Your task to perform on an android device: uninstall "Reddit" Image 0: 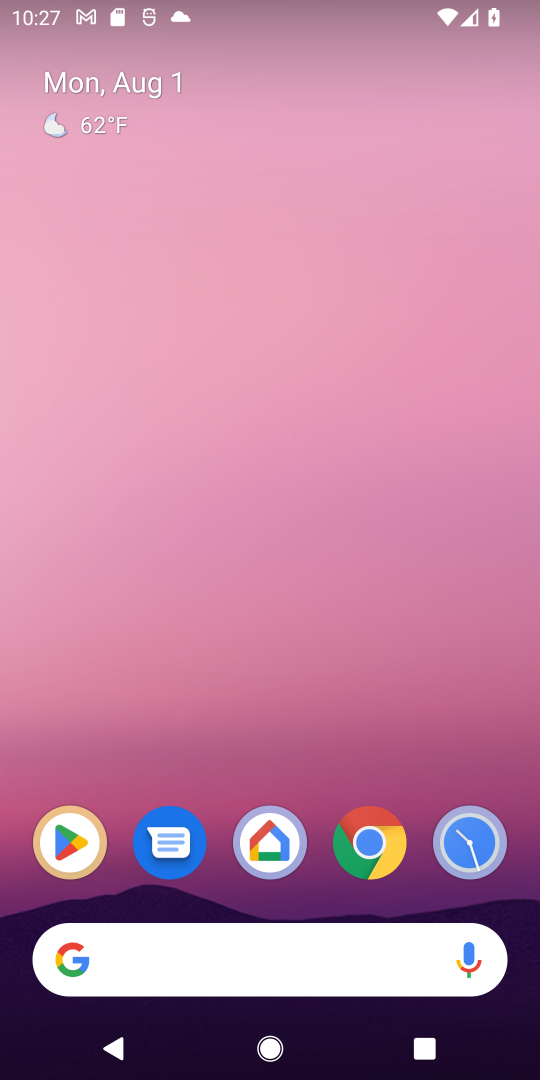
Step 0: click (99, 841)
Your task to perform on an android device: uninstall "Reddit" Image 1: 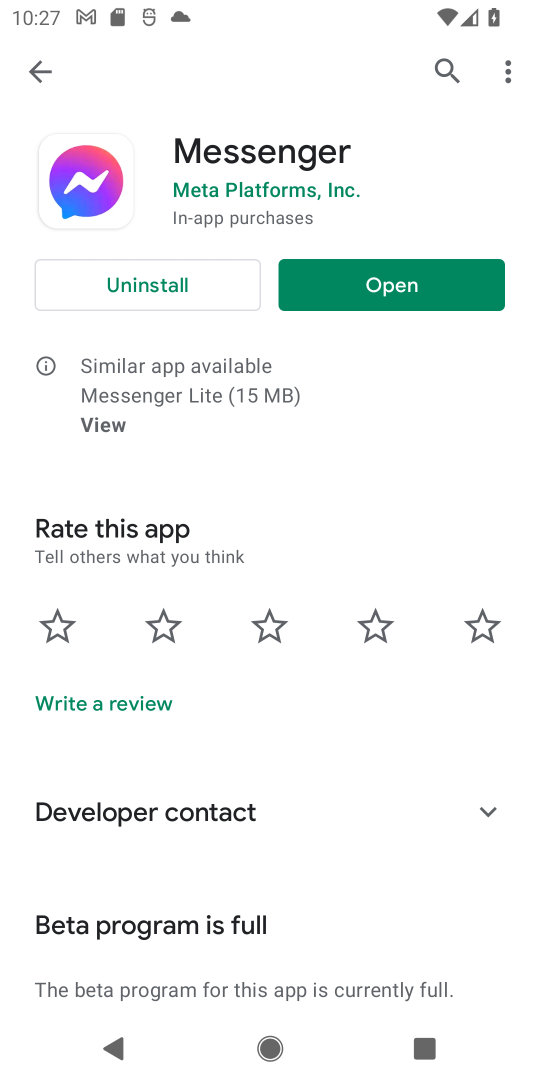
Step 1: click (428, 74)
Your task to perform on an android device: uninstall "Reddit" Image 2: 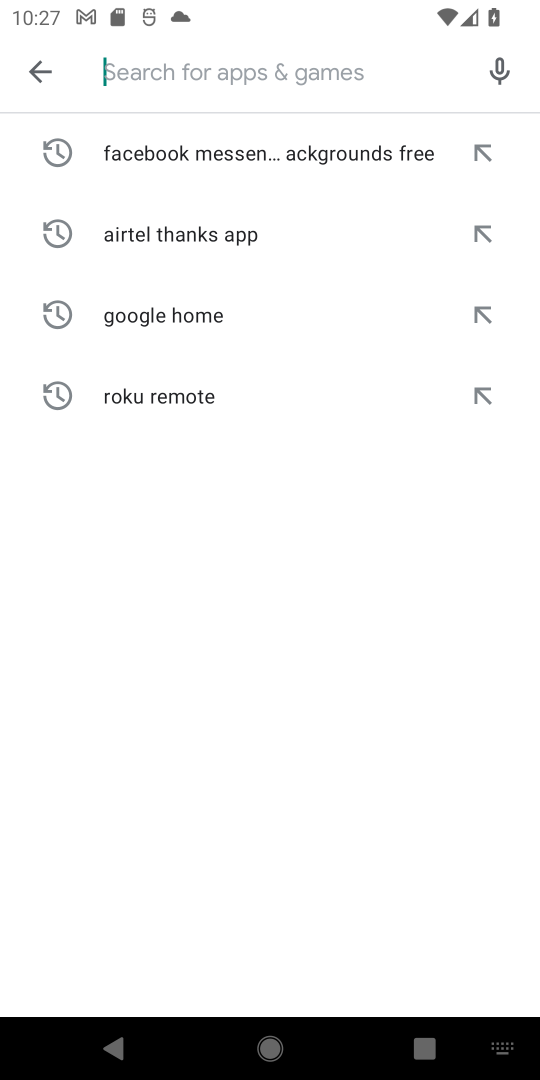
Step 2: click (197, 106)
Your task to perform on an android device: uninstall "Reddit" Image 3: 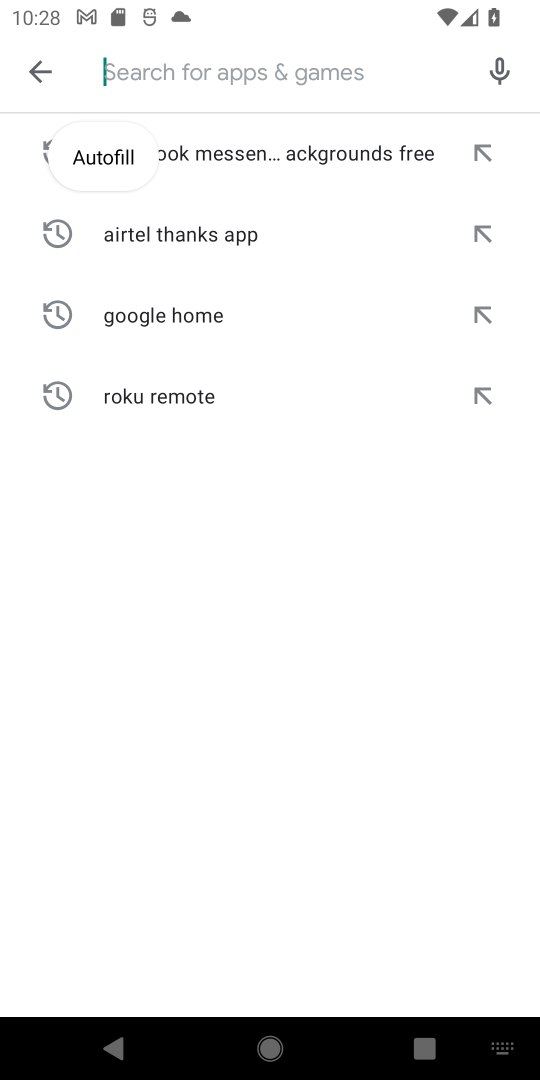
Step 3: type "reddit"
Your task to perform on an android device: uninstall "Reddit" Image 4: 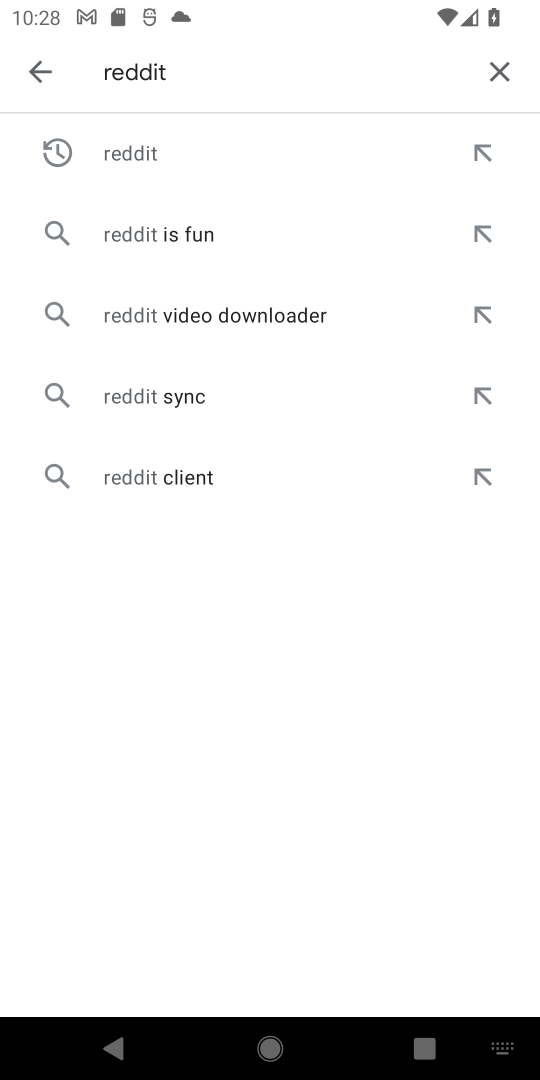
Step 4: click (147, 157)
Your task to perform on an android device: uninstall "Reddit" Image 5: 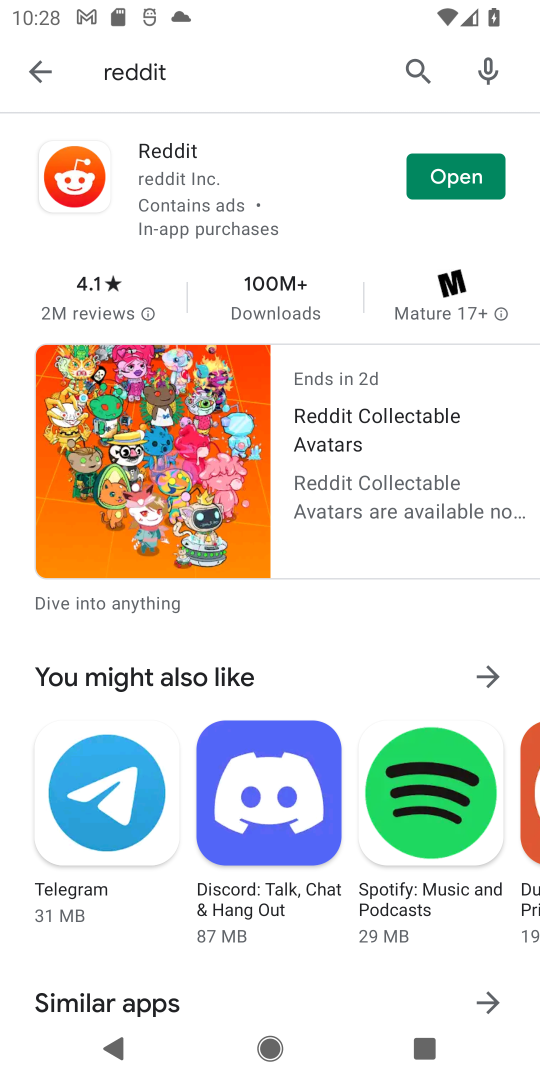
Step 5: click (202, 179)
Your task to perform on an android device: uninstall "Reddit" Image 6: 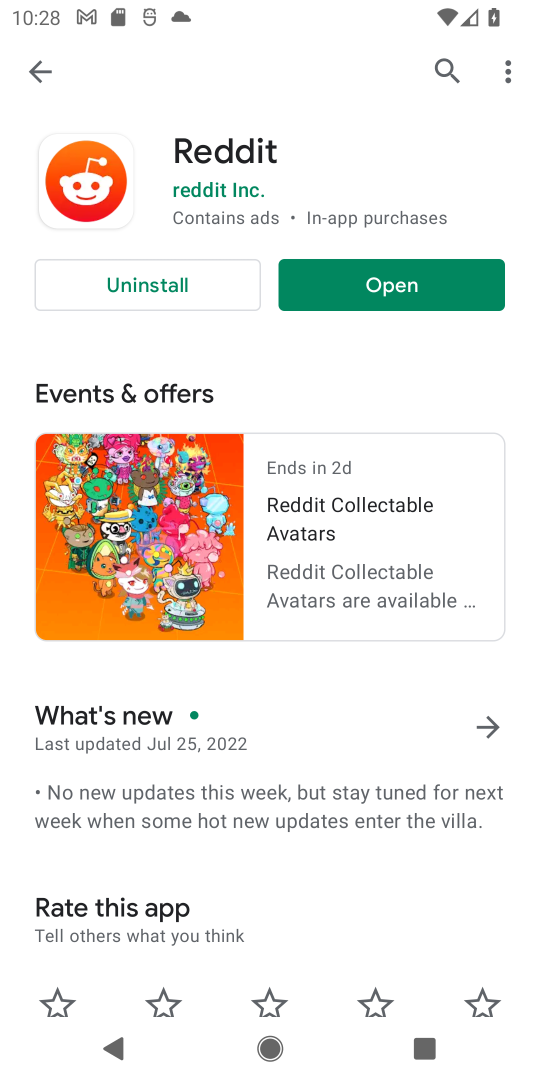
Step 6: click (147, 275)
Your task to perform on an android device: uninstall "Reddit" Image 7: 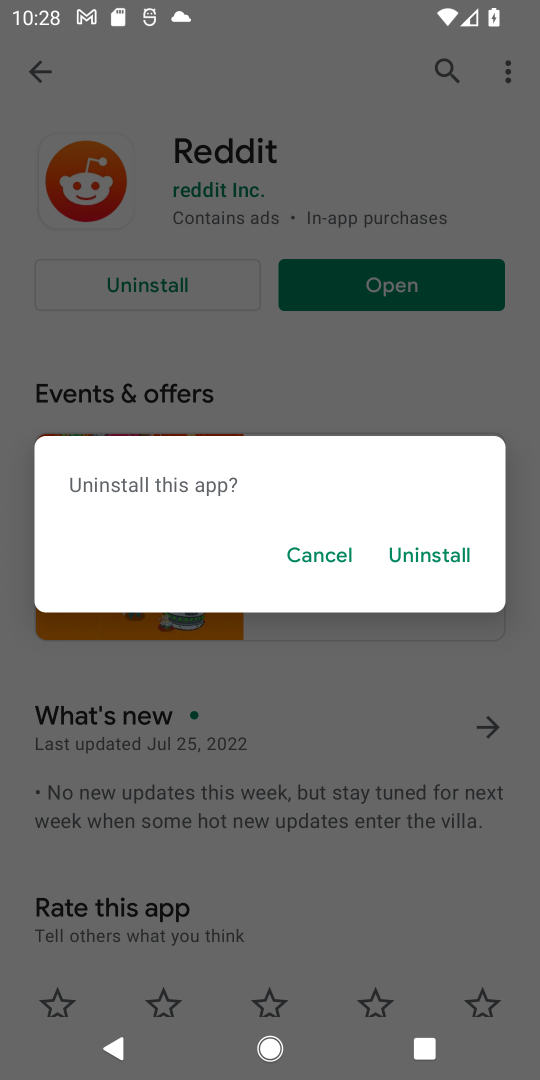
Step 7: click (415, 550)
Your task to perform on an android device: uninstall "Reddit" Image 8: 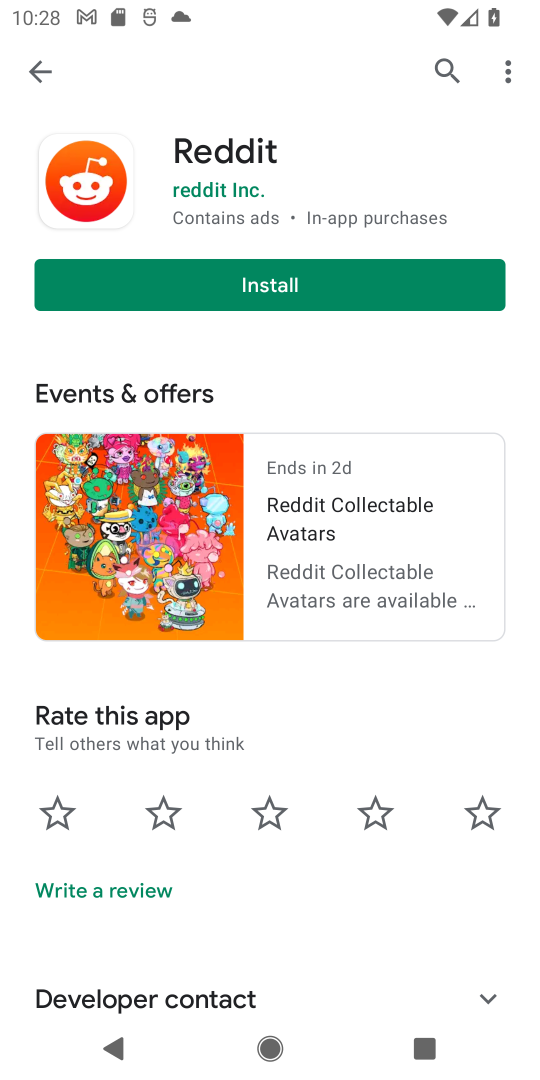
Step 8: task complete